Your task to perform on an android device: Search for "bose quietcomfort 35" on costco.com, select the first entry, and add it to the cart. Image 0: 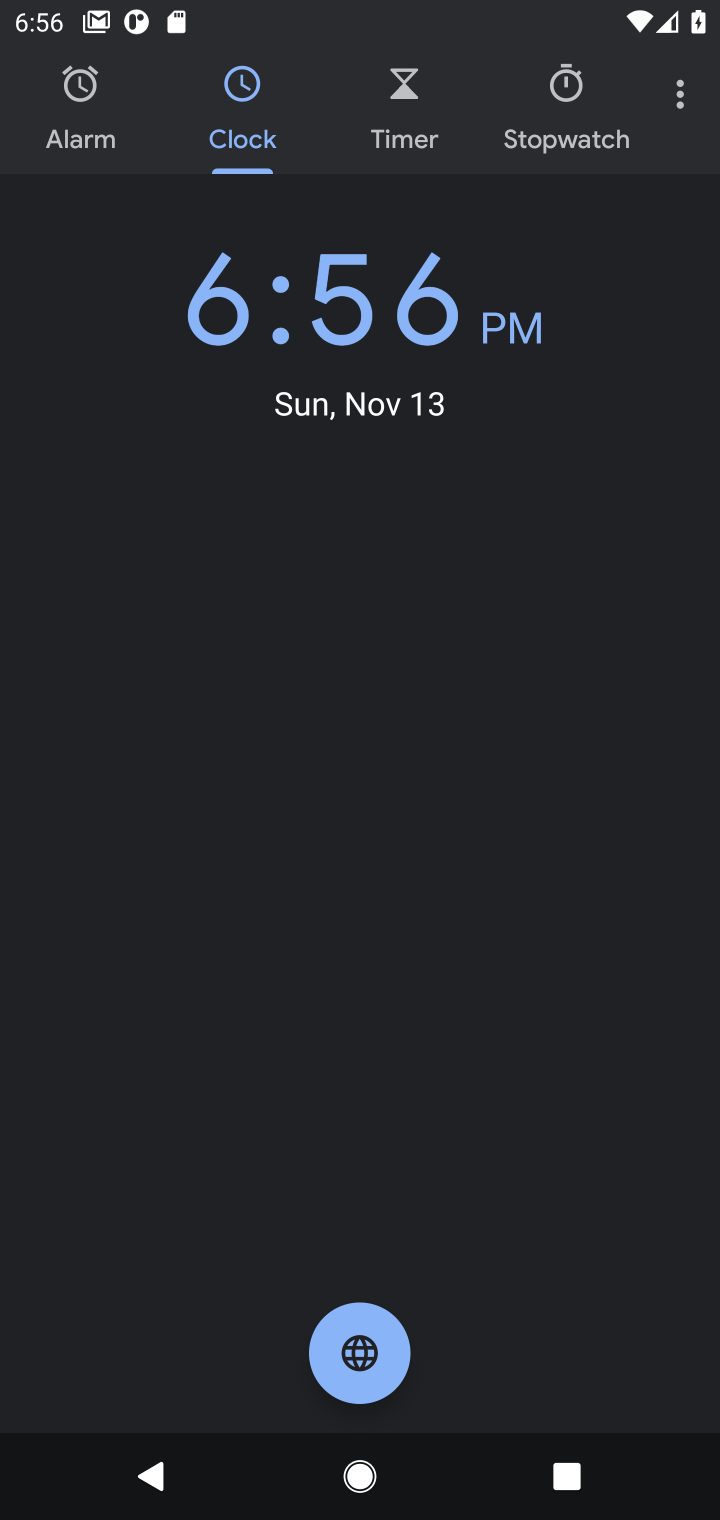
Step 0: press home button
Your task to perform on an android device: Search for "bose quietcomfort 35" on costco.com, select the first entry, and add it to the cart. Image 1: 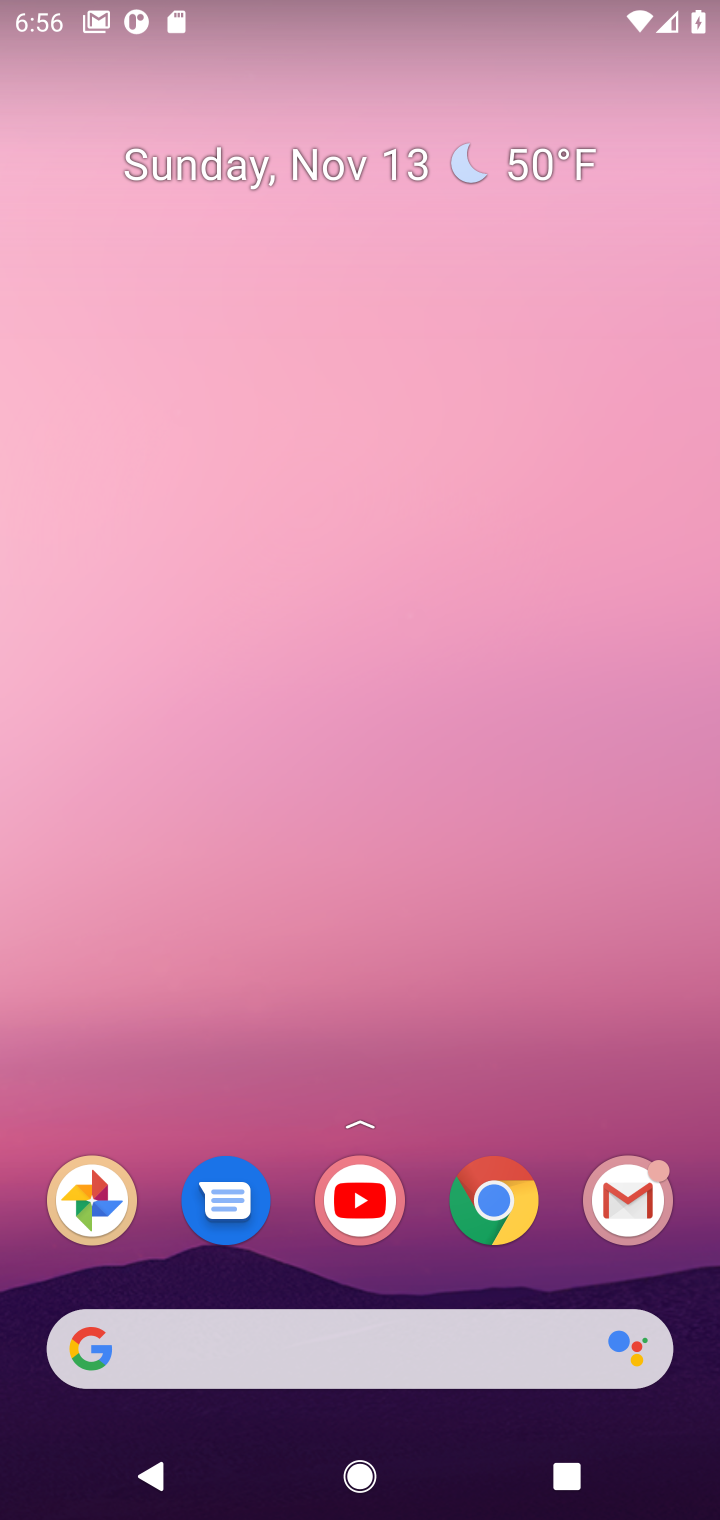
Step 1: click (493, 1208)
Your task to perform on an android device: Search for "bose quietcomfort 35" on costco.com, select the first entry, and add it to the cart. Image 2: 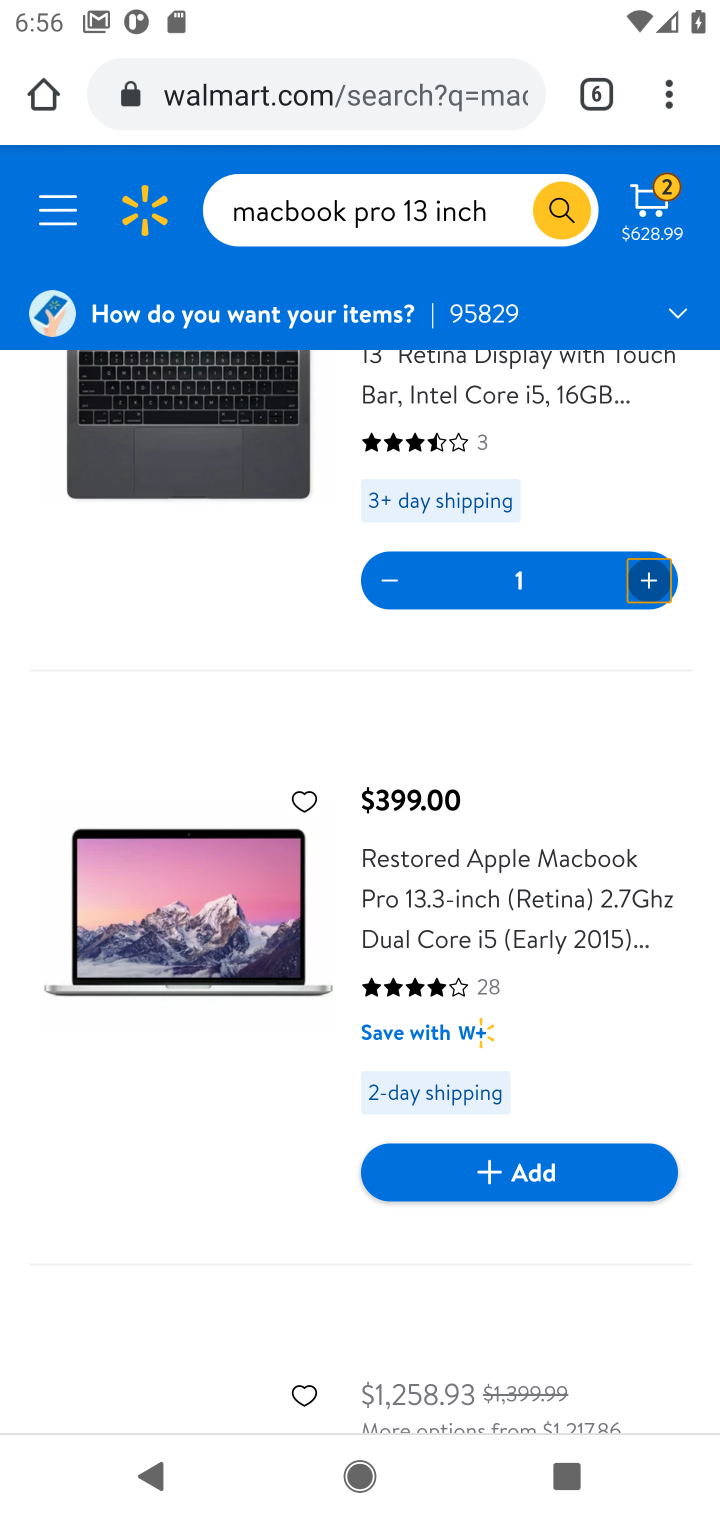
Step 2: click (597, 97)
Your task to perform on an android device: Search for "bose quietcomfort 35" on costco.com, select the first entry, and add it to the cart. Image 3: 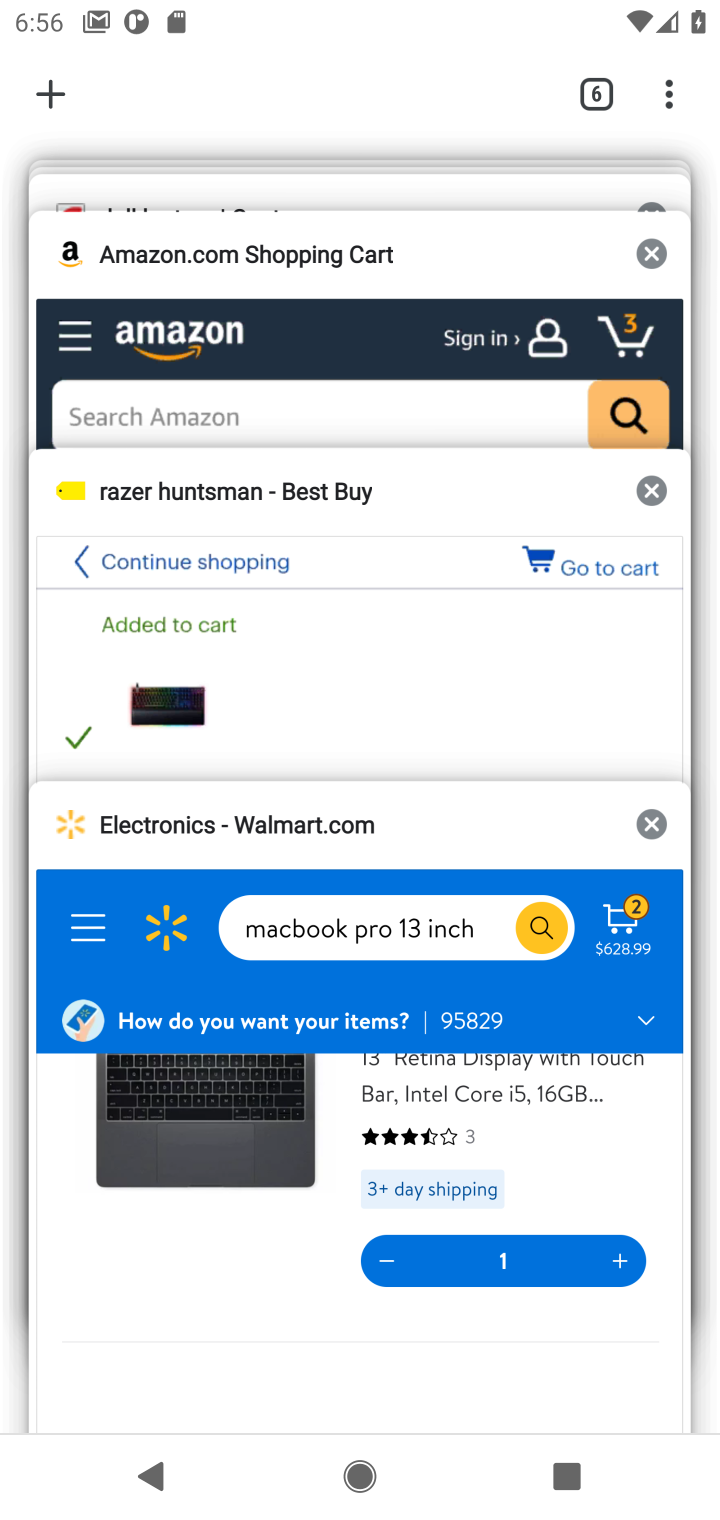
Step 3: drag from (263, 204) to (188, 414)
Your task to perform on an android device: Search for "bose quietcomfort 35" on costco.com, select the first entry, and add it to the cart. Image 4: 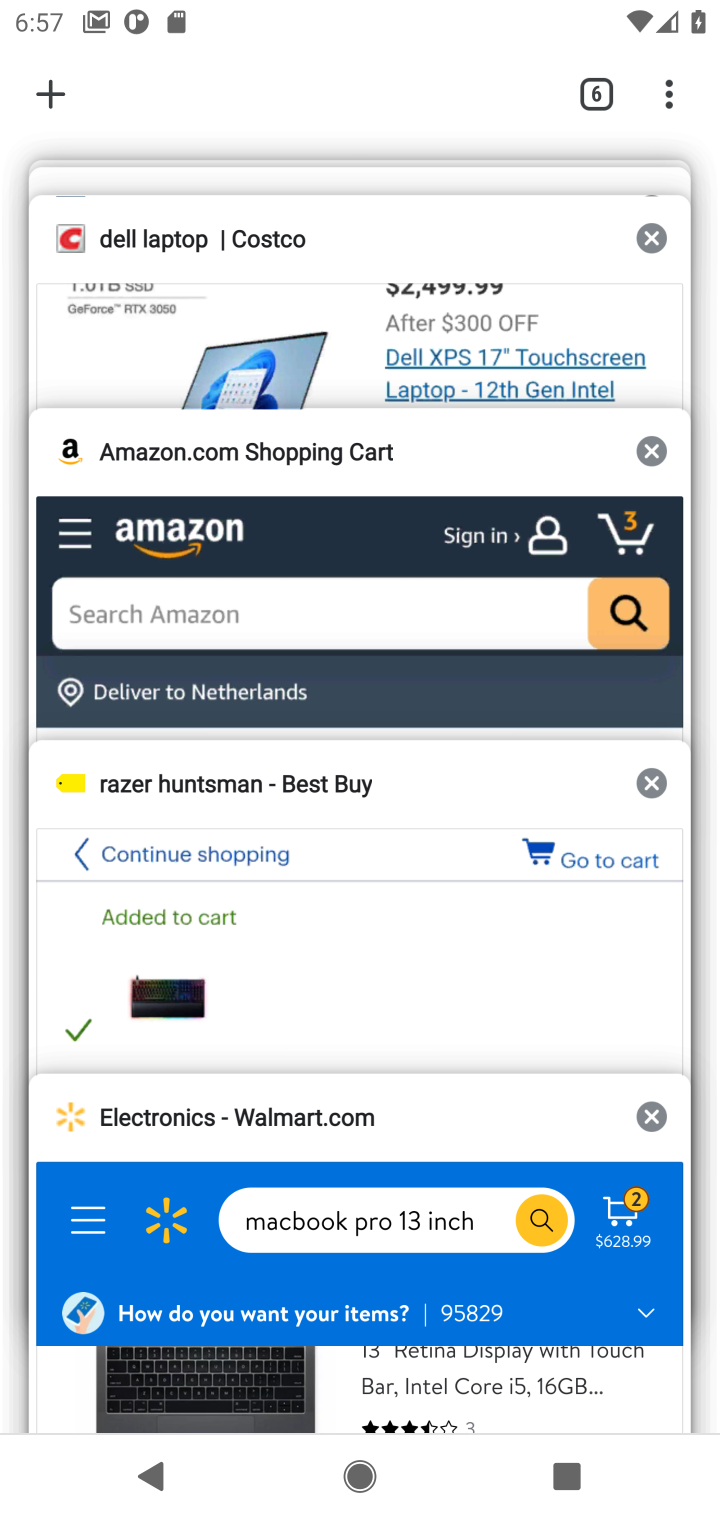
Step 4: click (245, 292)
Your task to perform on an android device: Search for "bose quietcomfort 35" on costco.com, select the first entry, and add it to the cart. Image 5: 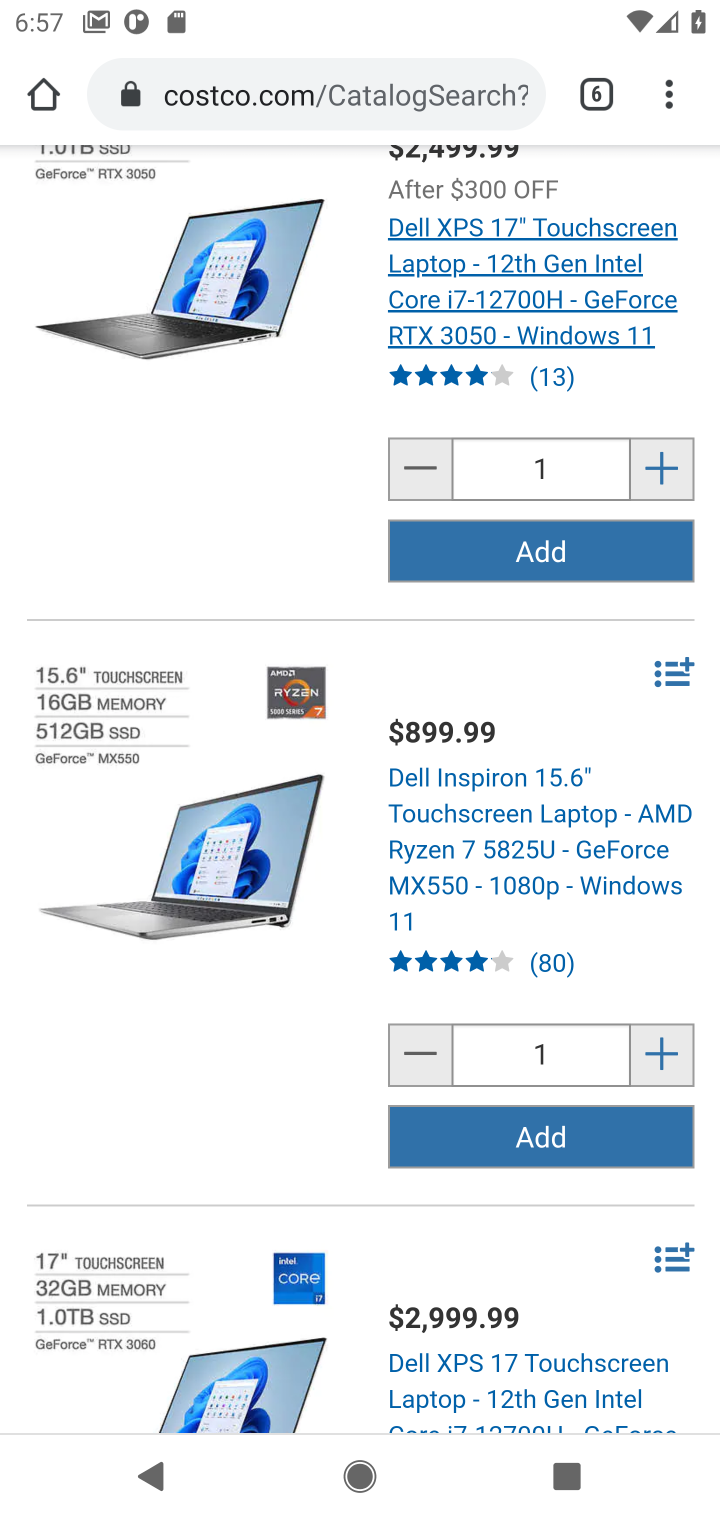
Step 5: drag from (378, 1519) to (462, 1509)
Your task to perform on an android device: Search for "bose quietcomfort 35" on costco.com, select the first entry, and add it to the cart. Image 6: 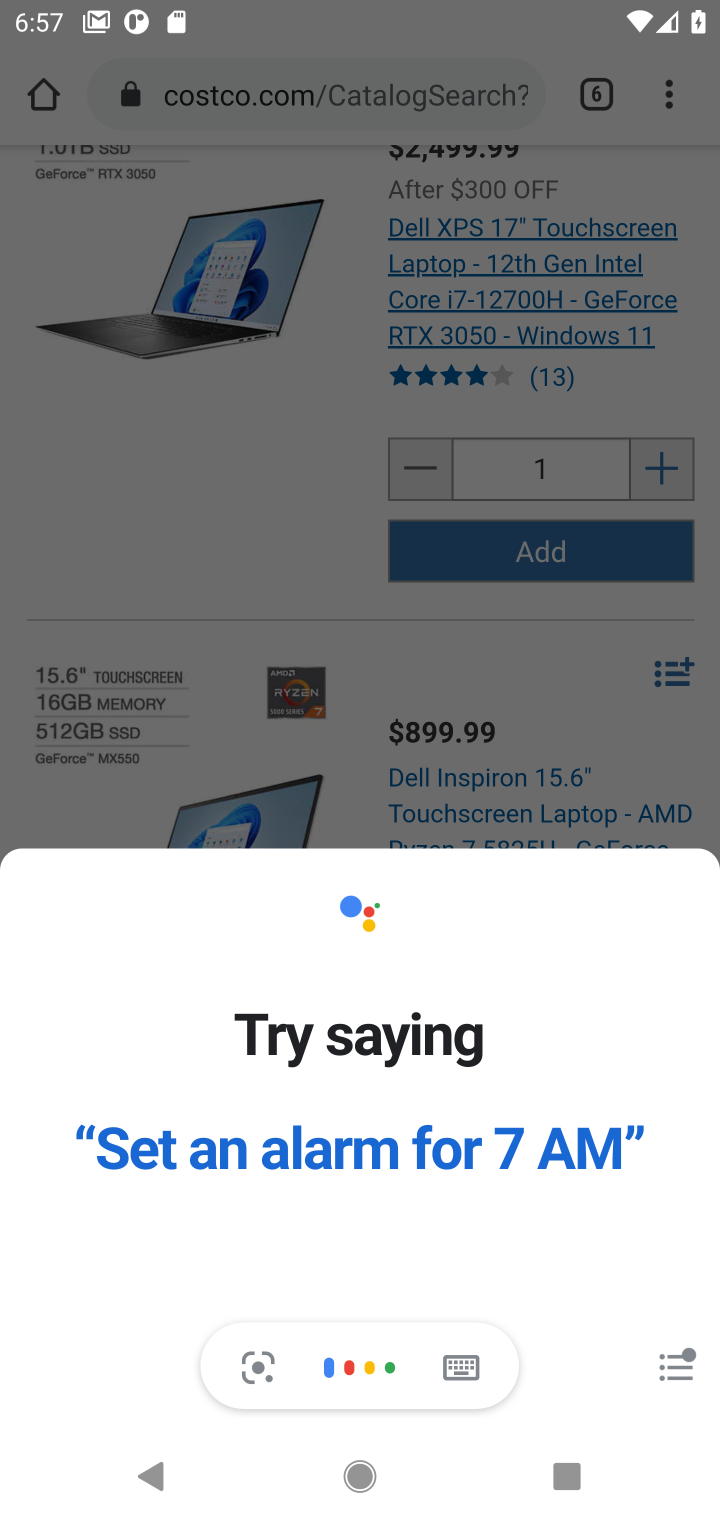
Step 6: click (266, 439)
Your task to perform on an android device: Search for "bose quietcomfort 35" on costco.com, select the first entry, and add it to the cart. Image 7: 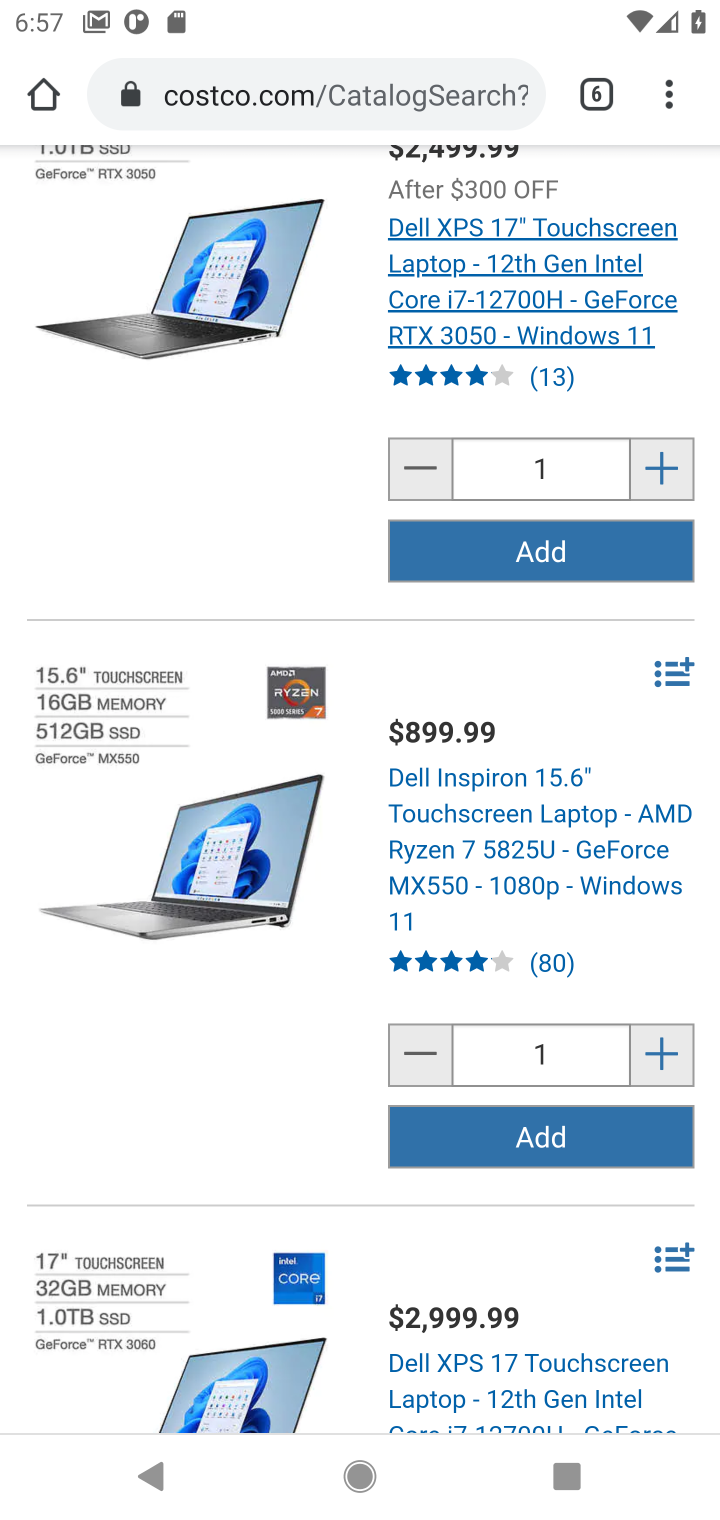
Step 7: drag from (332, 323) to (115, 1051)
Your task to perform on an android device: Search for "bose quietcomfort 35" on costco.com, select the first entry, and add it to the cart. Image 8: 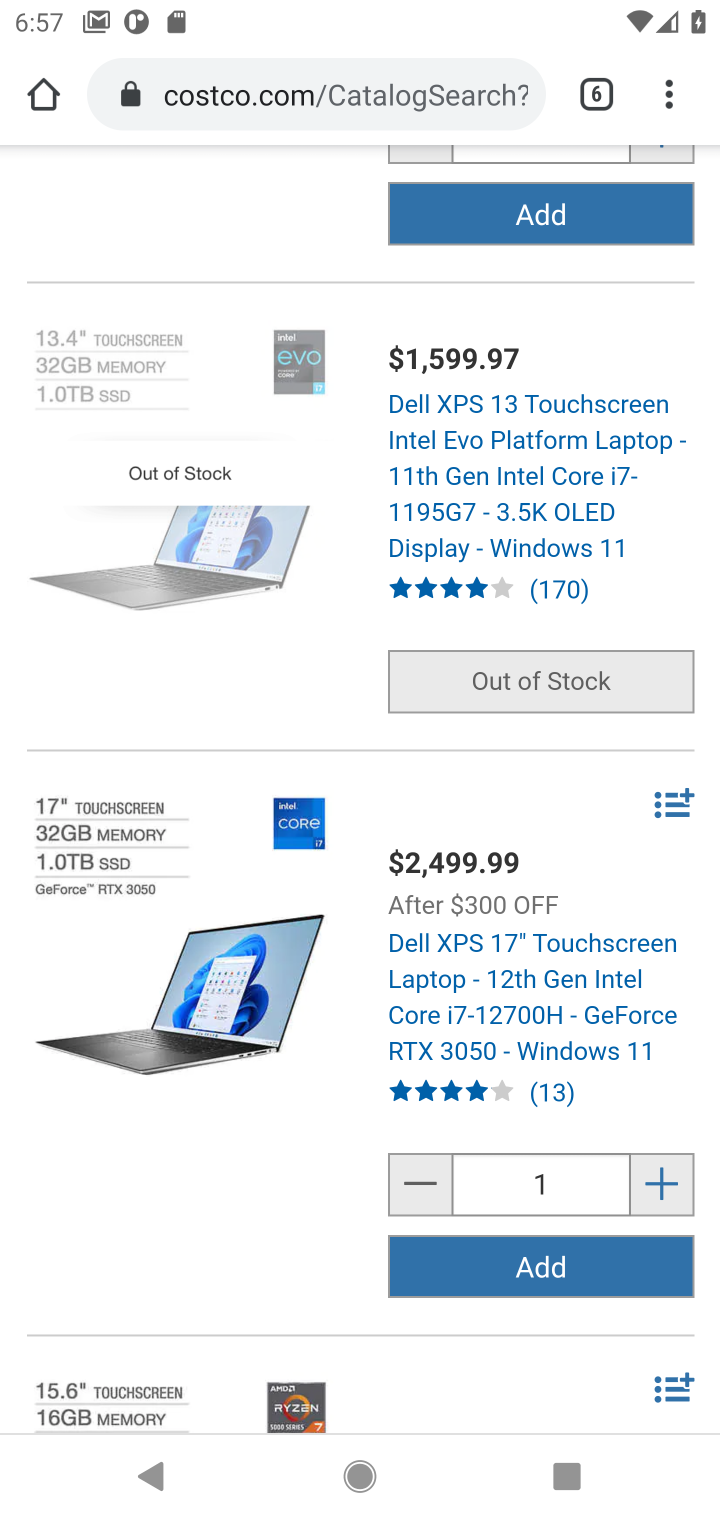
Step 8: drag from (289, 186) to (453, 957)
Your task to perform on an android device: Search for "bose quietcomfort 35" on costco.com, select the first entry, and add it to the cart. Image 9: 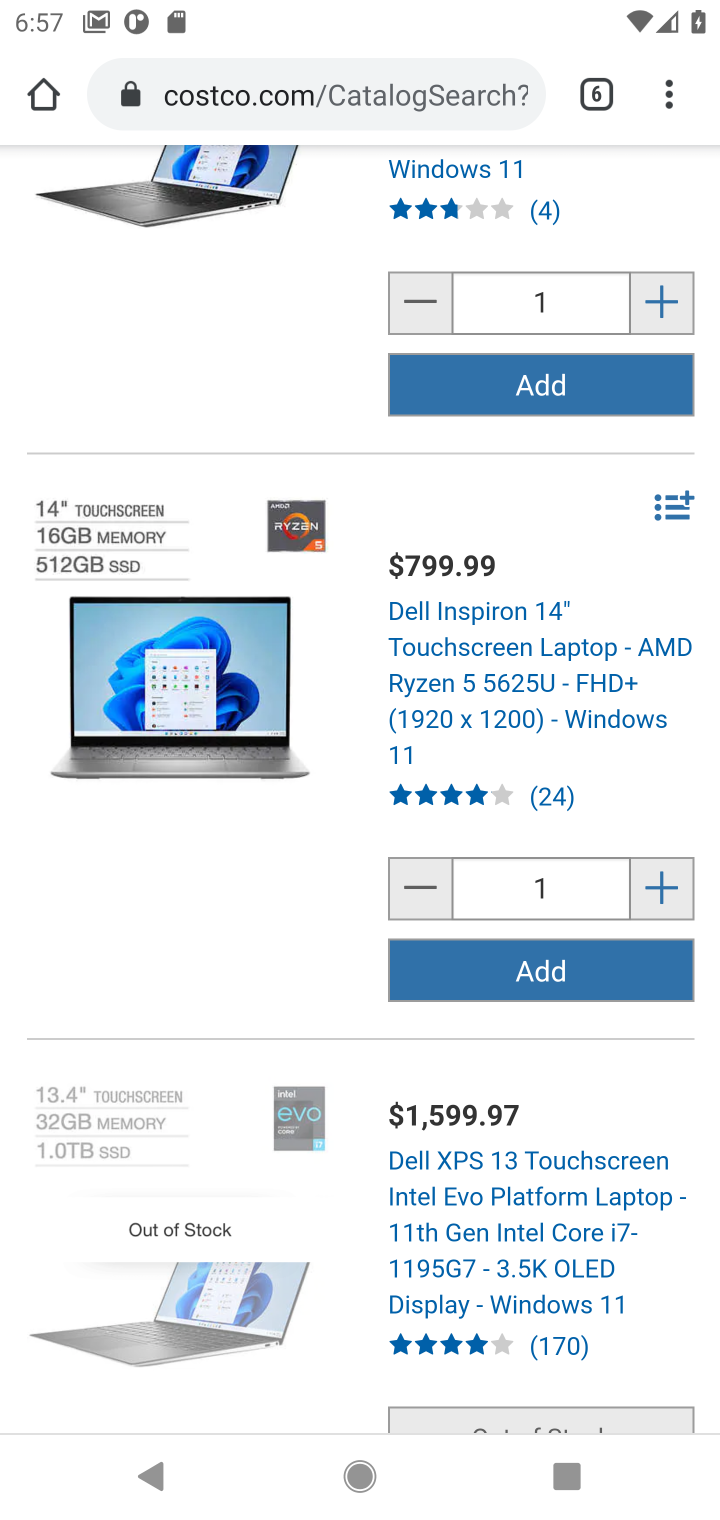
Step 9: drag from (299, 398) to (315, 1098)
Your task to perform on an android device: Search for "bose quietcomfort 35" on costco.com, select the first entry, and add it to the cart. Image 10: 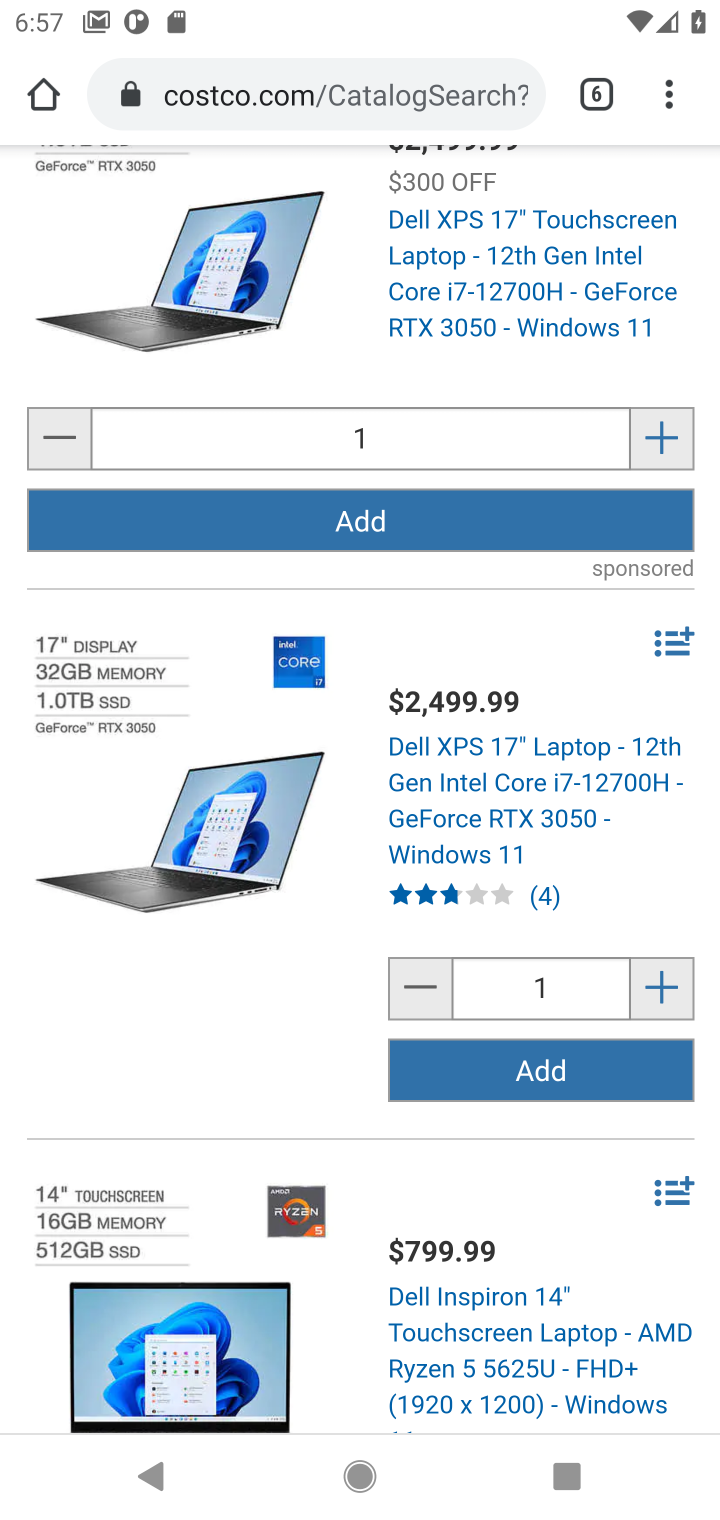
Step 10: drag from (341, 166) to (309, 1188)
Your task to perform on an android device: Search for "bose quietcomfort 35" on costco.com, select the first entry, and add it to the cart. Image 11: 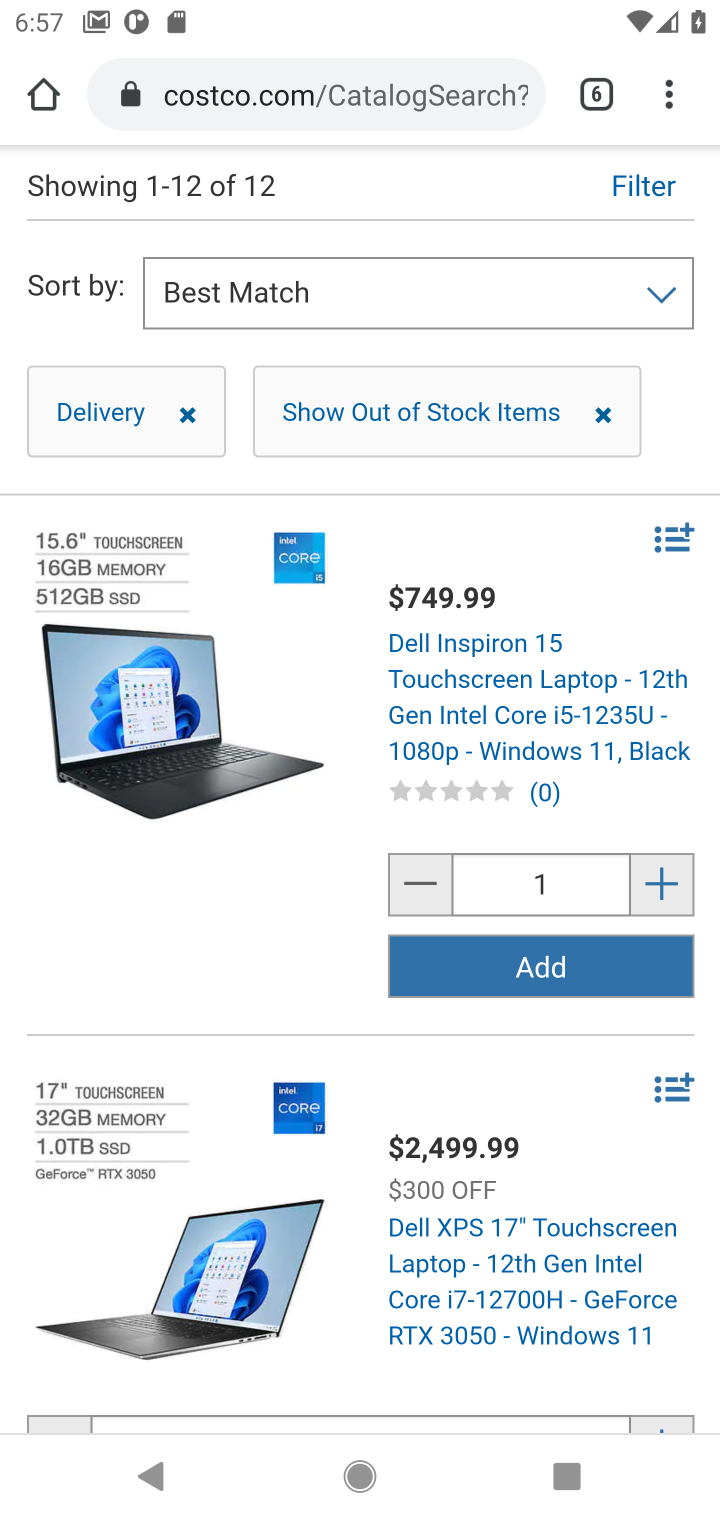
Step 11: drag from (500, 167) to (385, 816)
Your task to perform on an android device: Search for "bose quietcomfort 35" on costco.com, select the first entry, and add it to the cart. Image 12: 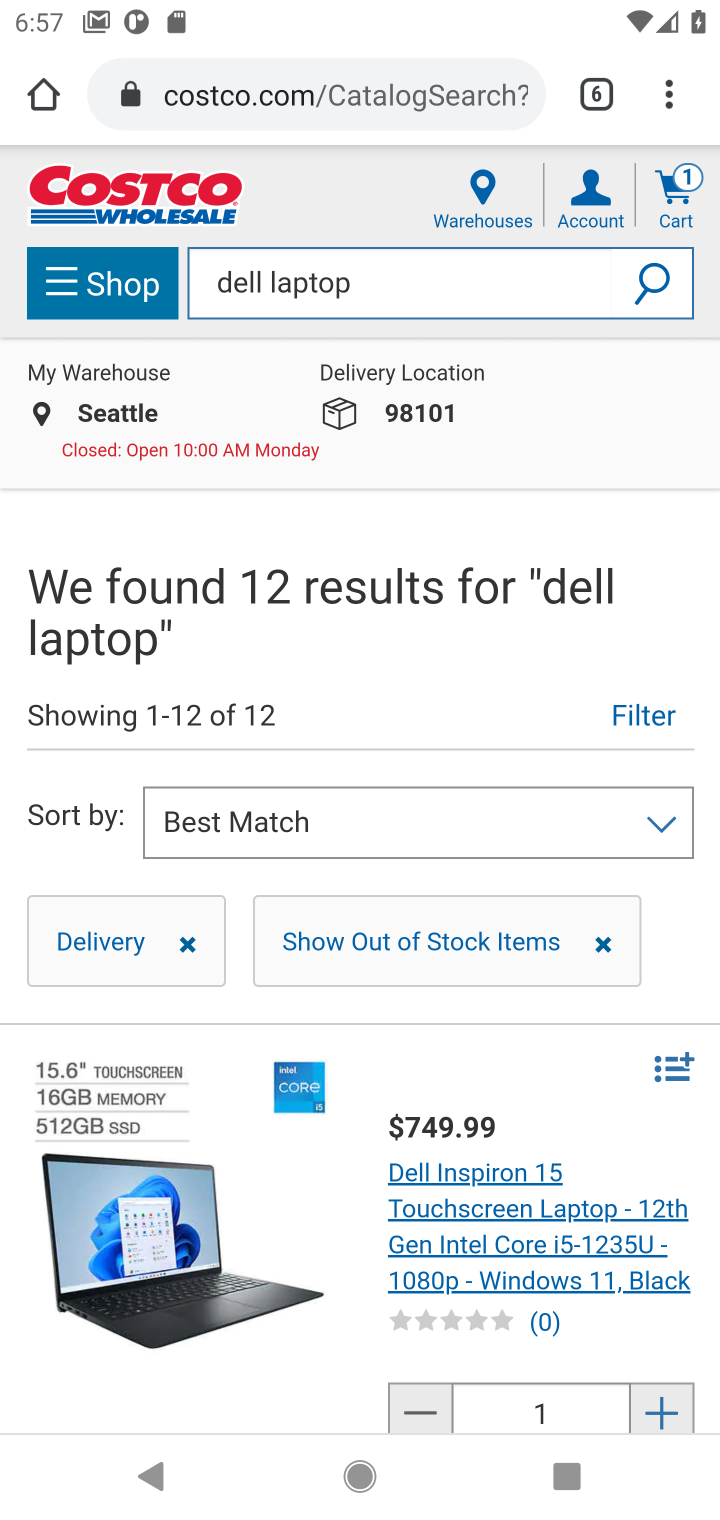
Step 12: click (397, 290)
Your task to perform on an android device: Search for "bose quietcomfort 35" on costco.com, select the first entry, and add it to the cart. Image 13: 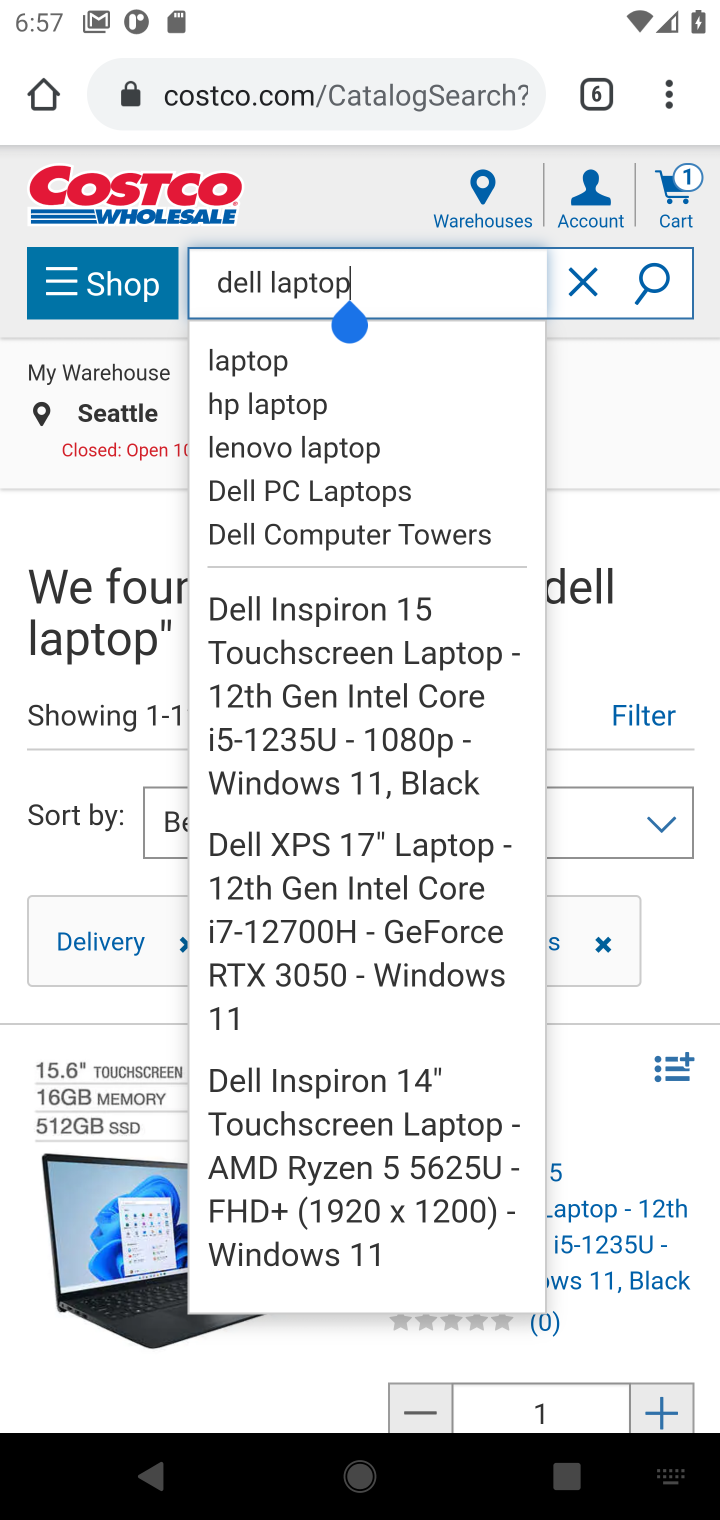
Step 13: click (583, 288)
Your task to perform on an android device: Search for "bose quietcomfort 35" on costco.com, select the first entry, and add it to the cart. Image 14: 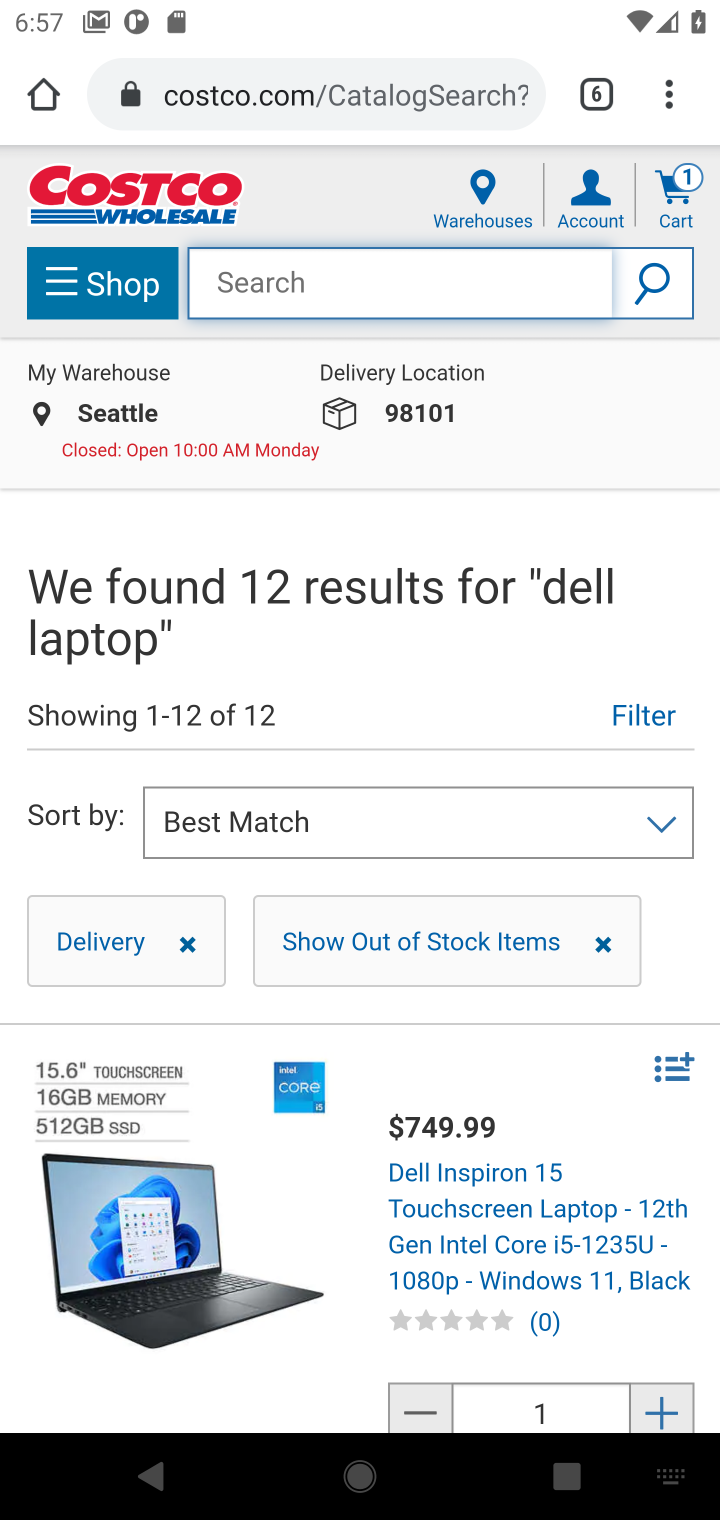
Step 14: type "bose quietcomfort 35"
Your task to perform on an android device: Search for "bose quietcomfort 35" on costco.com, select the first entry, and add it to the cart. Image 15: 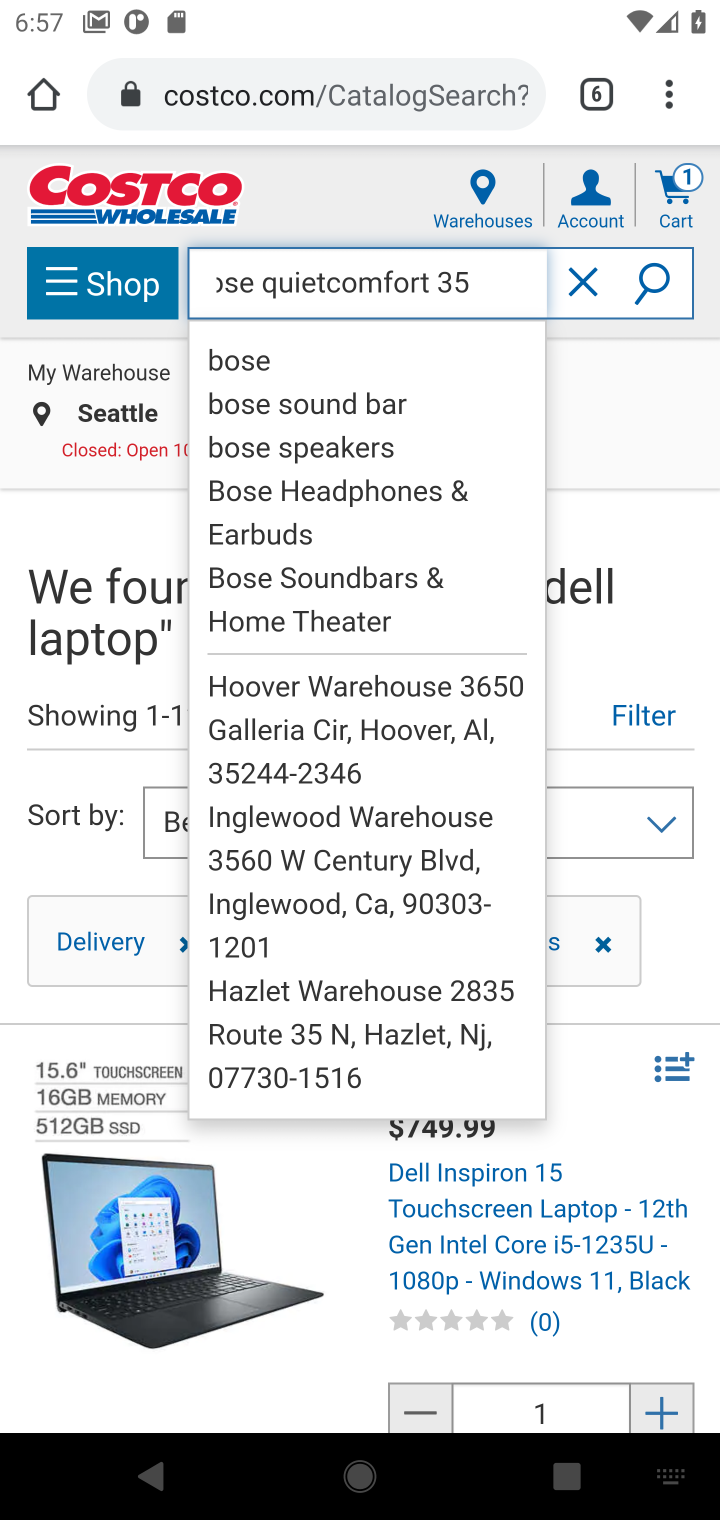
Step 15: click (655, 280)
Your task to perform on an android device: Search for "bose quietcomfort 35" on costco.com, select the first entry, and add it to the cart. Image 16: 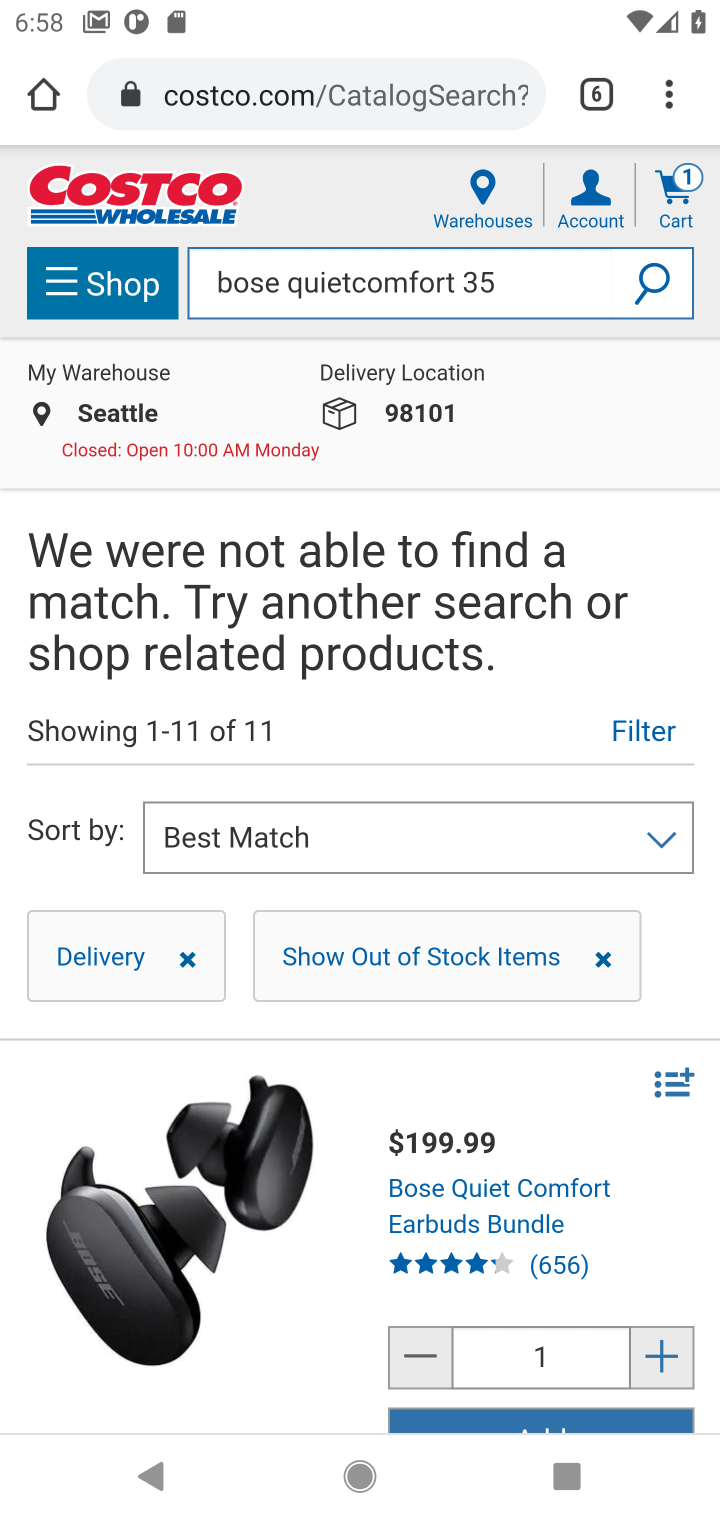
Step 16: drag from (325, 1263) to (565, 483)
Your task to perform on an android device: Search for "bose quietcomfort 35" on costco.com, select the first entry, and add it to the cart. Image 17: 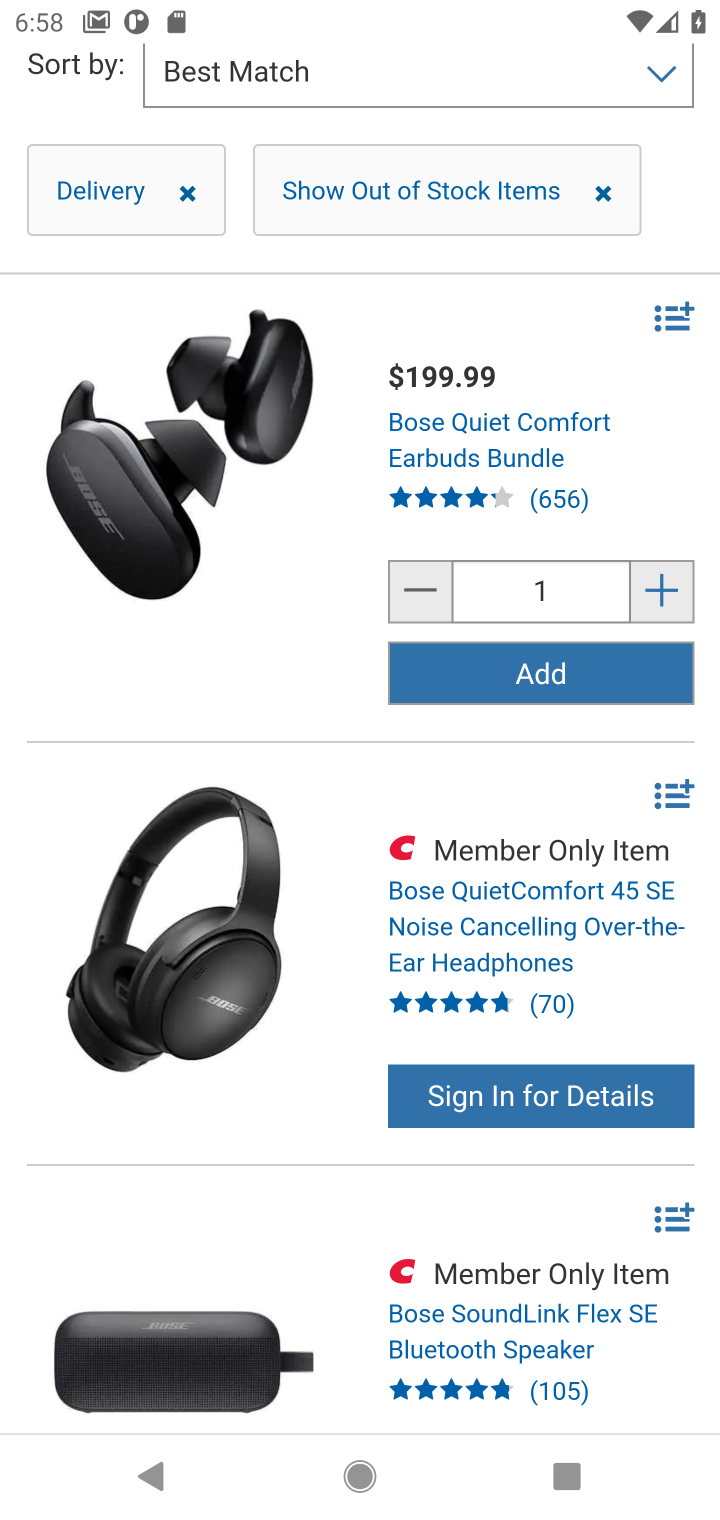
Step 17: click (589, 676)
Your task to perform on an android device: Search for "bose quietcomfort 35" on costco.com, select the first entry, and add it to the cart. Image 18: 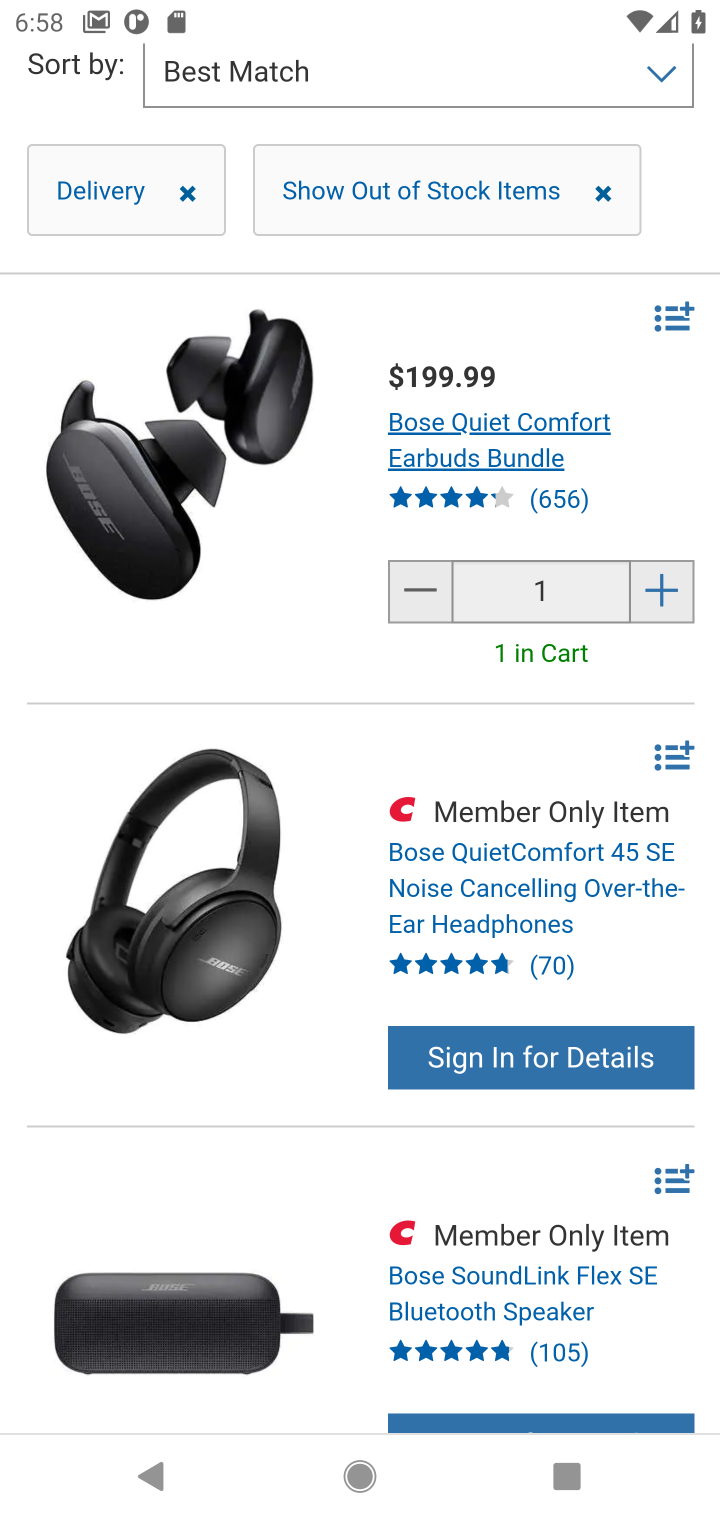
Step 18: task complete